Your task to perform on an android device: Go to Amazon Image 0: 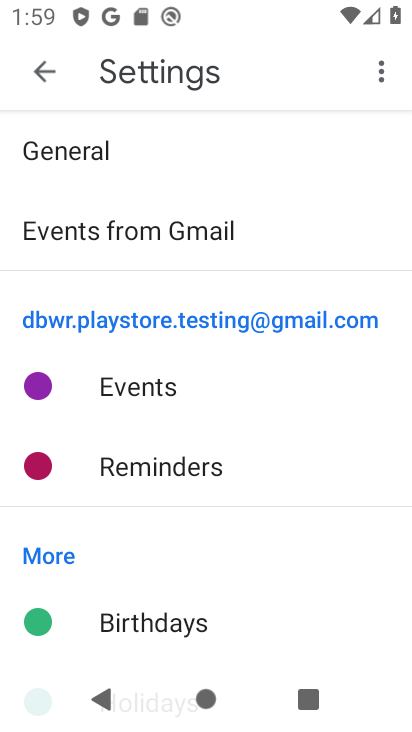
Step 0: press home button
Your task to perform on an android device: Go to Amazon Image 1: 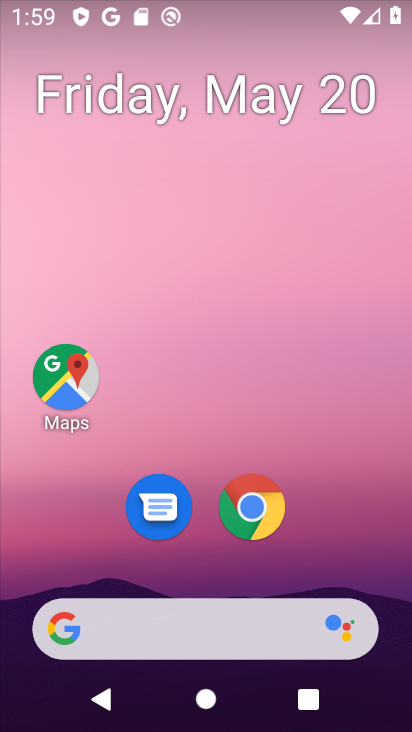
Step 1: click (258, 513)
Your task to perform on an android device: Go to Amazon Image 2: 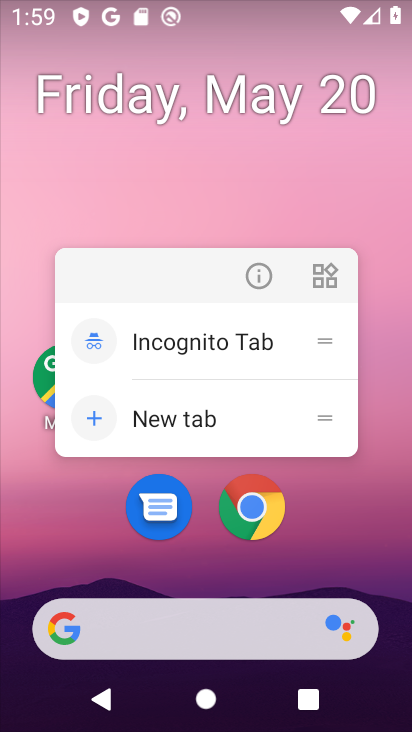
Step 2: click (251, 506)
Your task to perform on an android device: Go to Amazon Image 3: 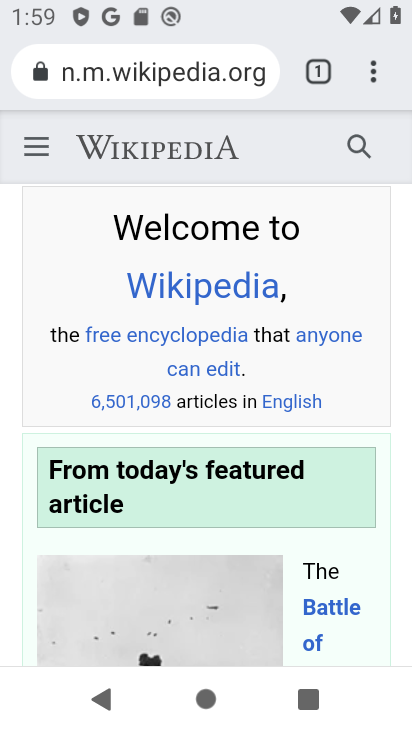
Step 3: click (186, 75)
Your task to perform on an android device: Go to Amazon Image 4: 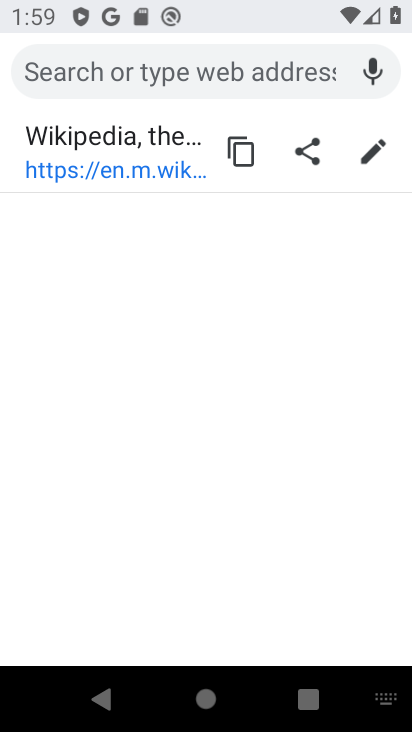
Step 4: type "amazon"
Your task to perform on an android device: Go to Amazon Image 5: 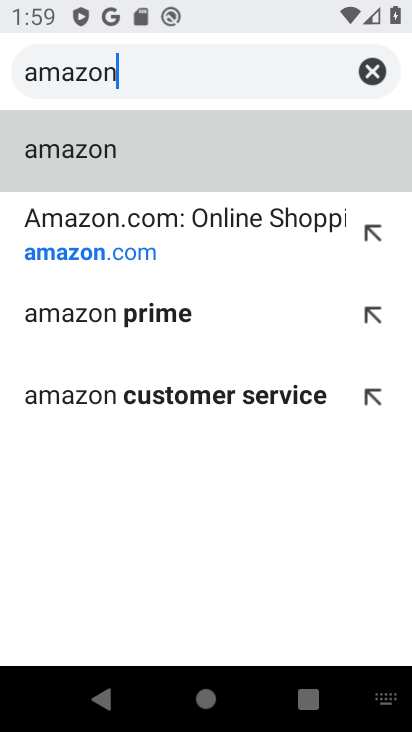
Step 5: click (60, 154)
Your task to perform on an android device: Go to Amazon Image 6: 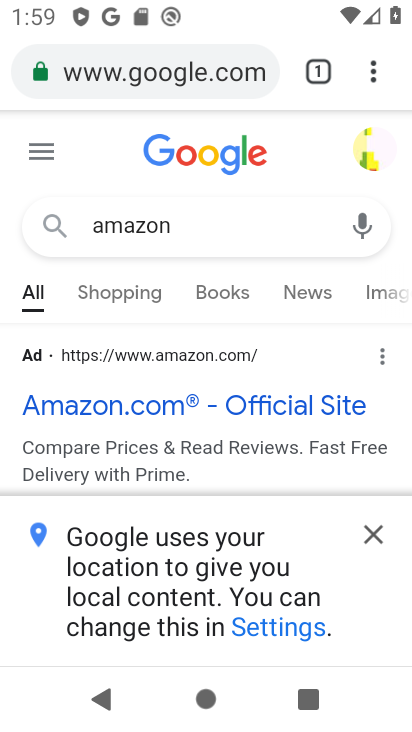
Step 6: click (163, 401)
Your task to perform on an android device: Go to Amazon Image 7: 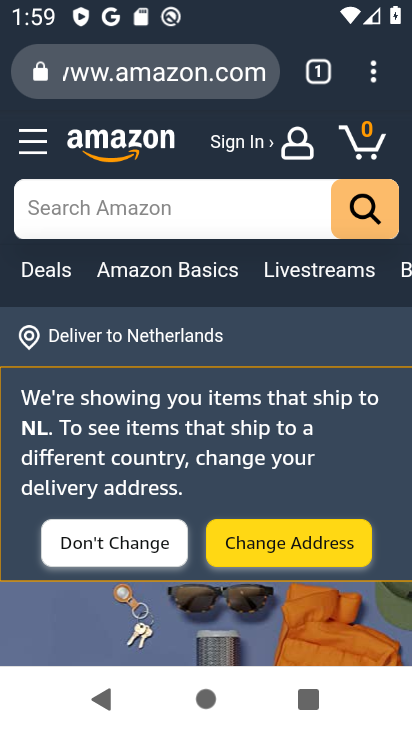
Step 7: task complete